Your task to perform on an android device: turn off location history Image 0: 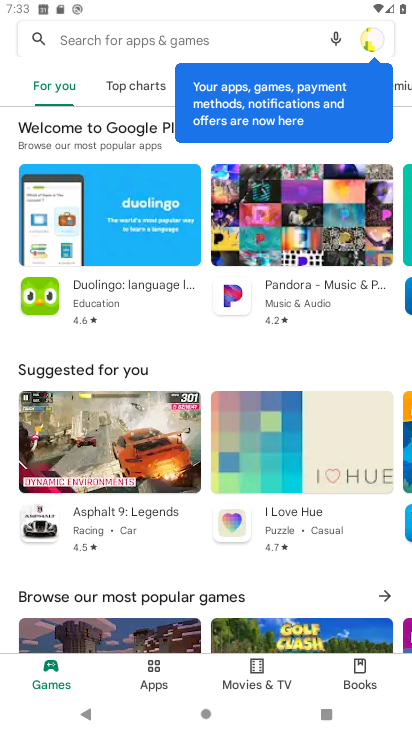
Step 0: press home button
Your task to perform on an android device: turn off location history Image 1: 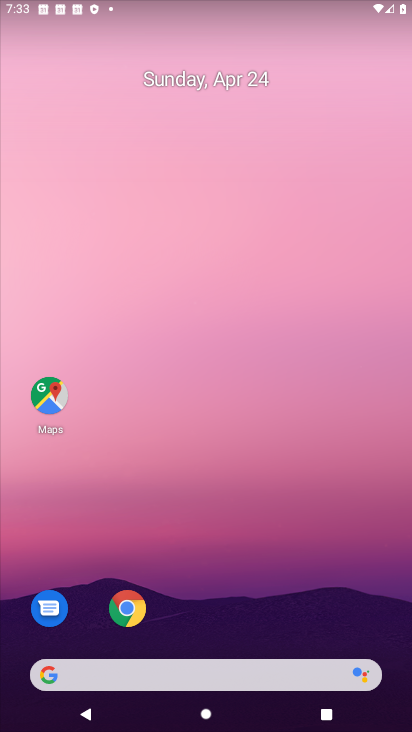
Step 1: drag from (269, 631) to (252, 37)
Your task to perform on an android device: turn off location history Image 2: 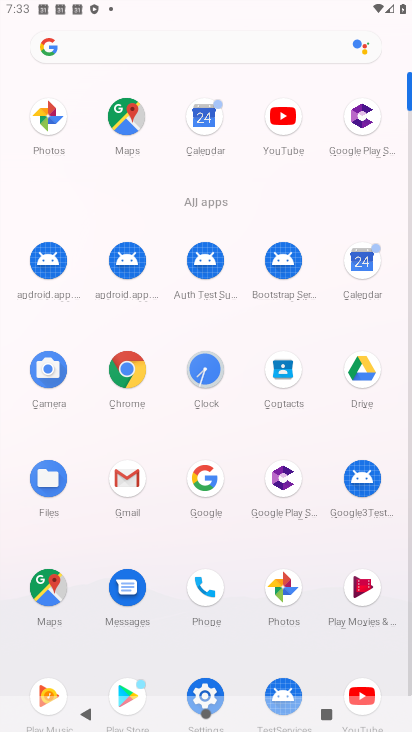
Step 2: drag from (241, 588) to (268, 328)
Your task to perform on an android device: turn off location history Image 3: 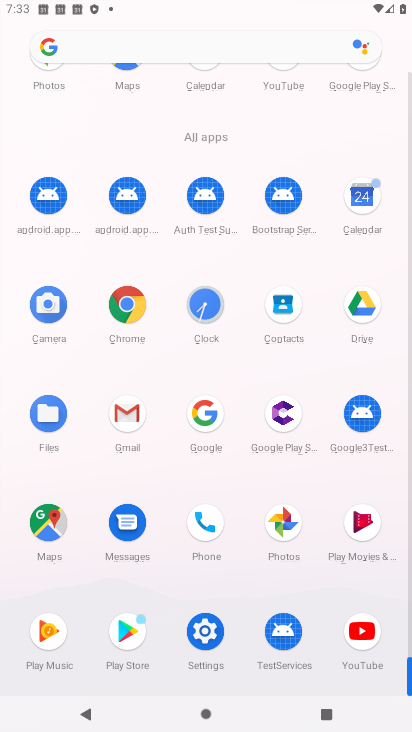
Step 3: click (206, 633)
Your task to perform on an android device: turn off location history Image 4: 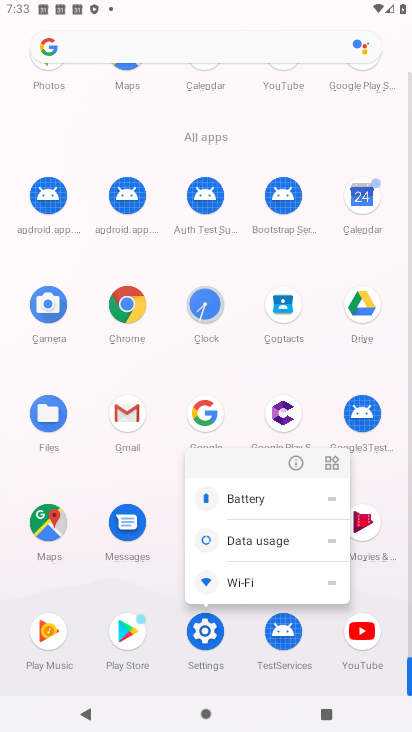
Step 4: click (205, 635)
Your task to perform on an android device: turn off location history Image 5: 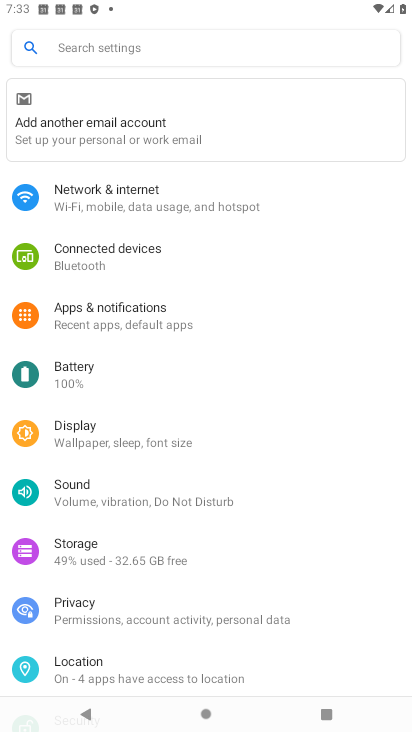
Step 5: drag from (137, 533) to (190, 258)
Your task to perform on an android device: turn off location history Image 6: 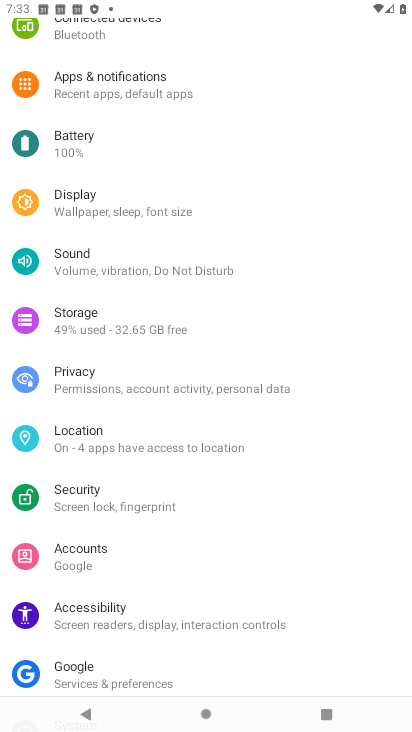
Step 6: click (107, 441)
Your task to perform on an android device: turn off location history Image 7: 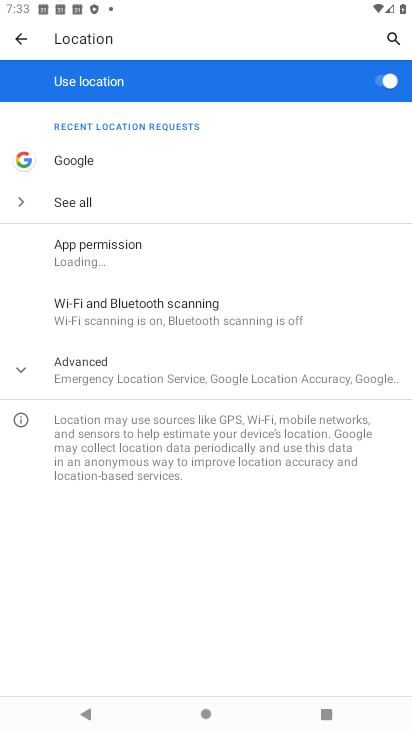
Step 7: click (60, 372)
Your task to perform on an android device: turn off location history Image 8: 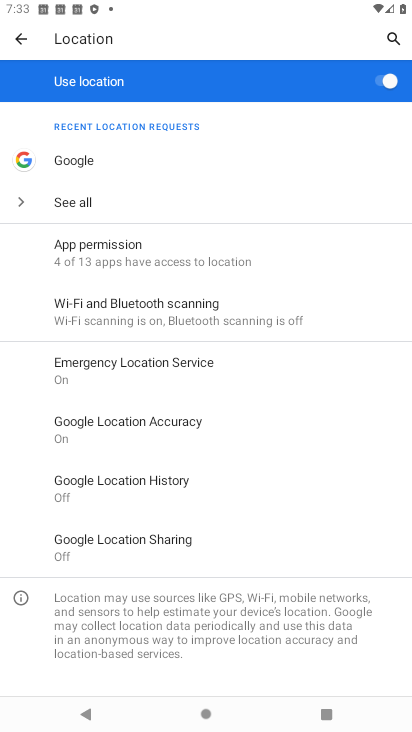
Step 8: click (159, 480)
Your task to perform on an android device: turn off location history Image 9: 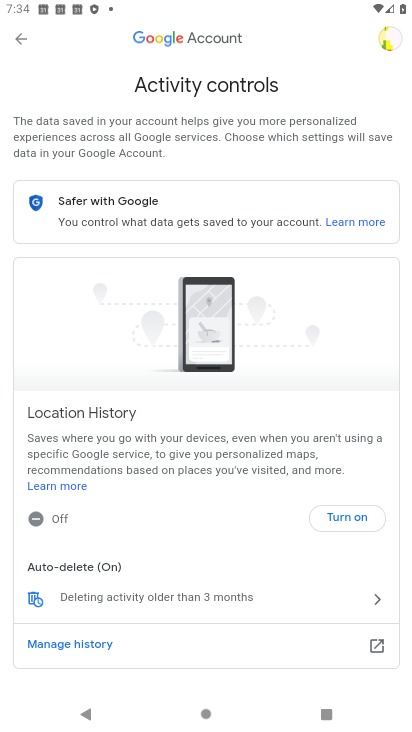
Step 9: task complete